Your task to perform on an android device: turn on the 24-hour format for clock Image 0: 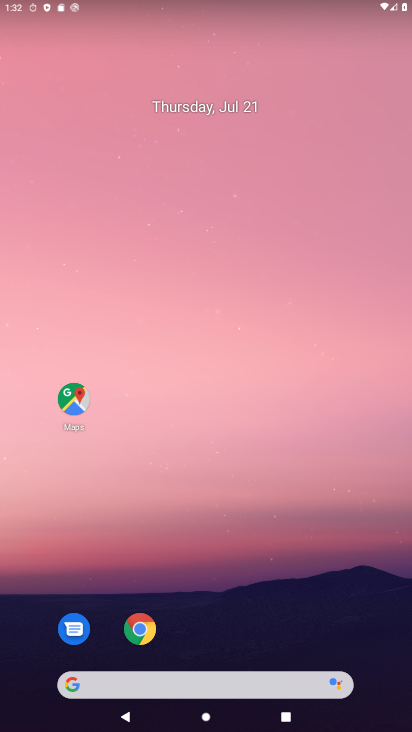
Step 0: drag from (40, 655) to (180, 263)
Your task to perform on an android device: turn on the 24-hour format for clock Image 1: 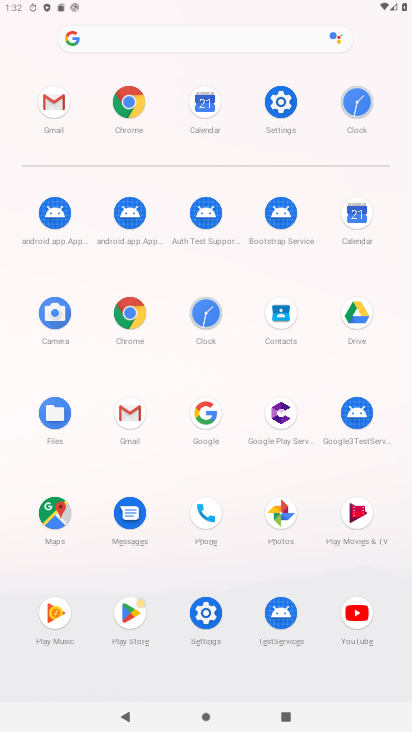
Step 1: click (203, 611)
Your task to perform on an android device: turn on the 24-hour format for clock Image 2: 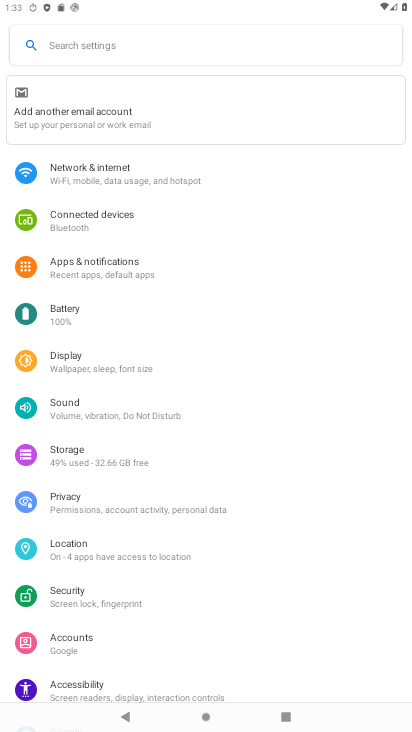
Step 2: task complete